Your task to perform on an android device: search for starred emails in the gmail app Image 0: 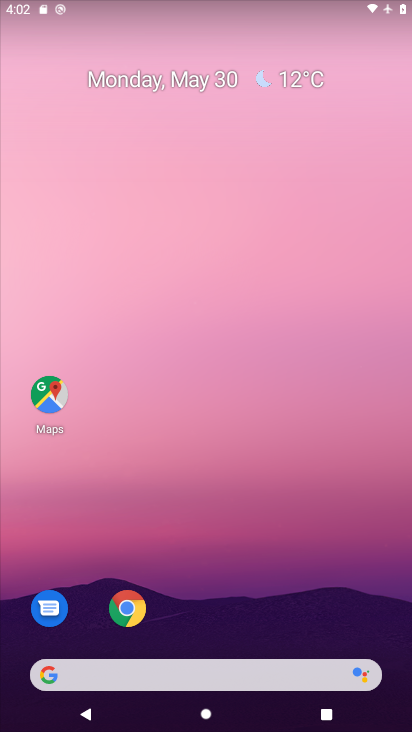
Step 0: drag from (272, 590) to (133, 39)
Your task to perform on an android device: search for starred emails in the gmail app Image 1: 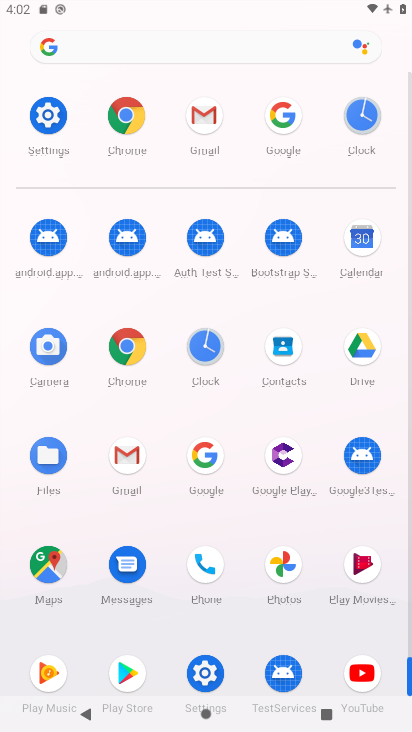
Step 1: click (134, 456)
Your task to perform on an android device: search for starred emails in the gmail app Image 2: 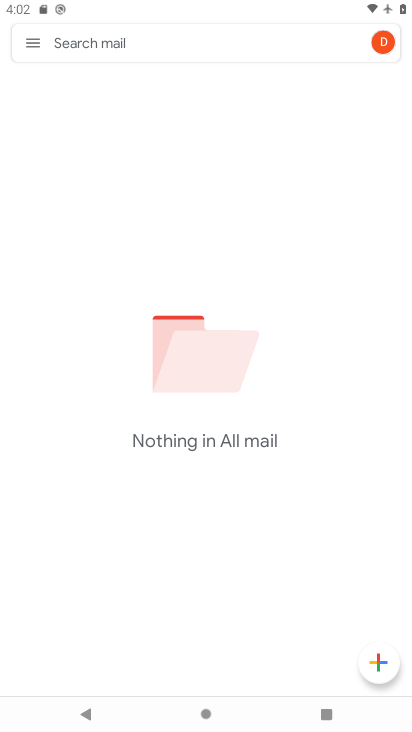
Step 2: click (140, 42)
Your task to perform on an android device: search for starred emails in the gmail app Image 3: 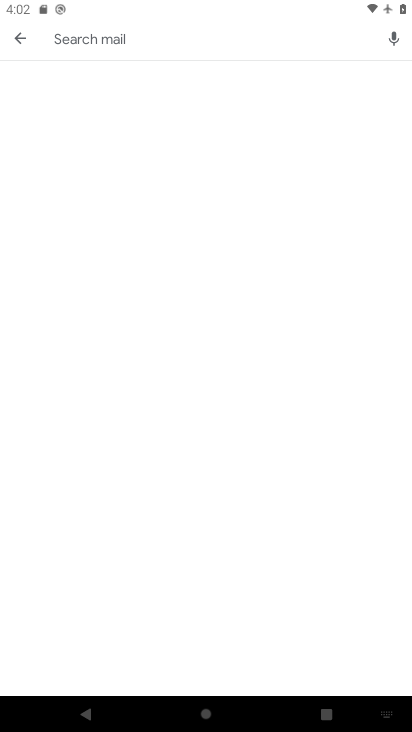
Step 3: type "starred"
Your task to perform on an android device: search for starred emails in the gmail app Image 4: 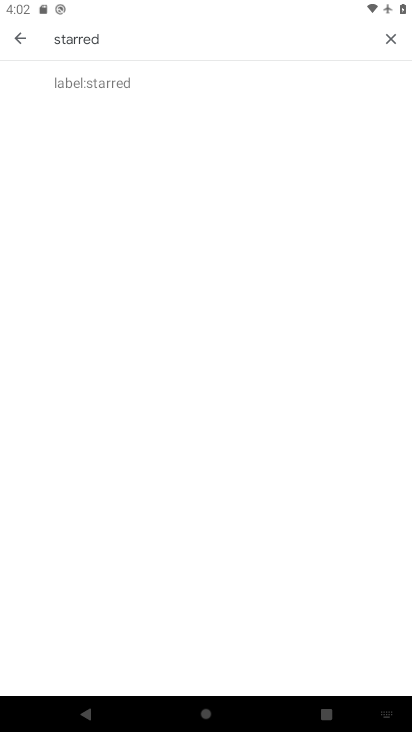
Step 4: click (136, 68)
Your task to perform on an android device: search for starred emails in the gmail app Image 5: 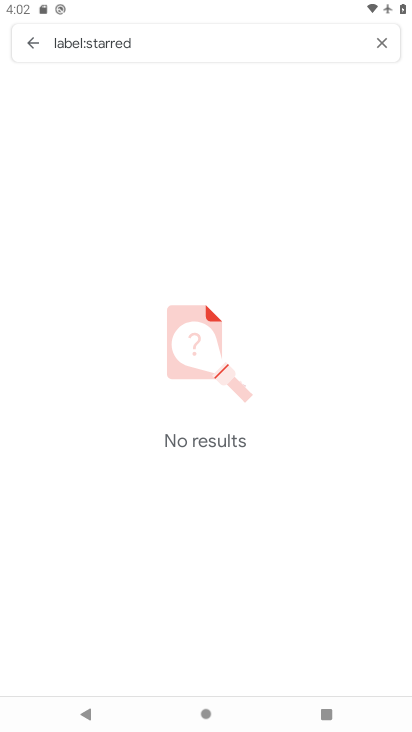
Step 5: task complete